Your task to perform on an android device: Open the Play Movies app and select the watchlist tab. Image 0: 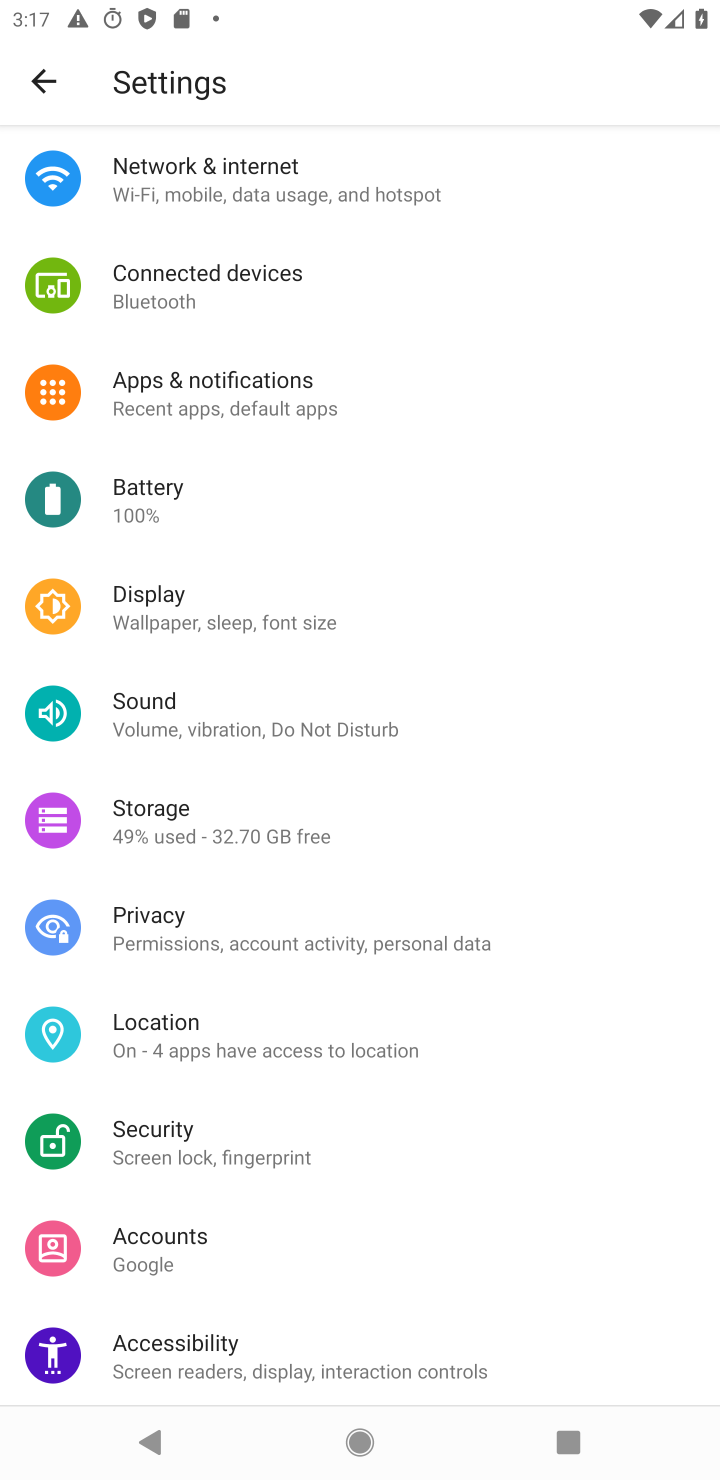
Step 0: press home button
Your task to perform on an android device: Open the Play Movies app and select the watchlist tab. Image 1: 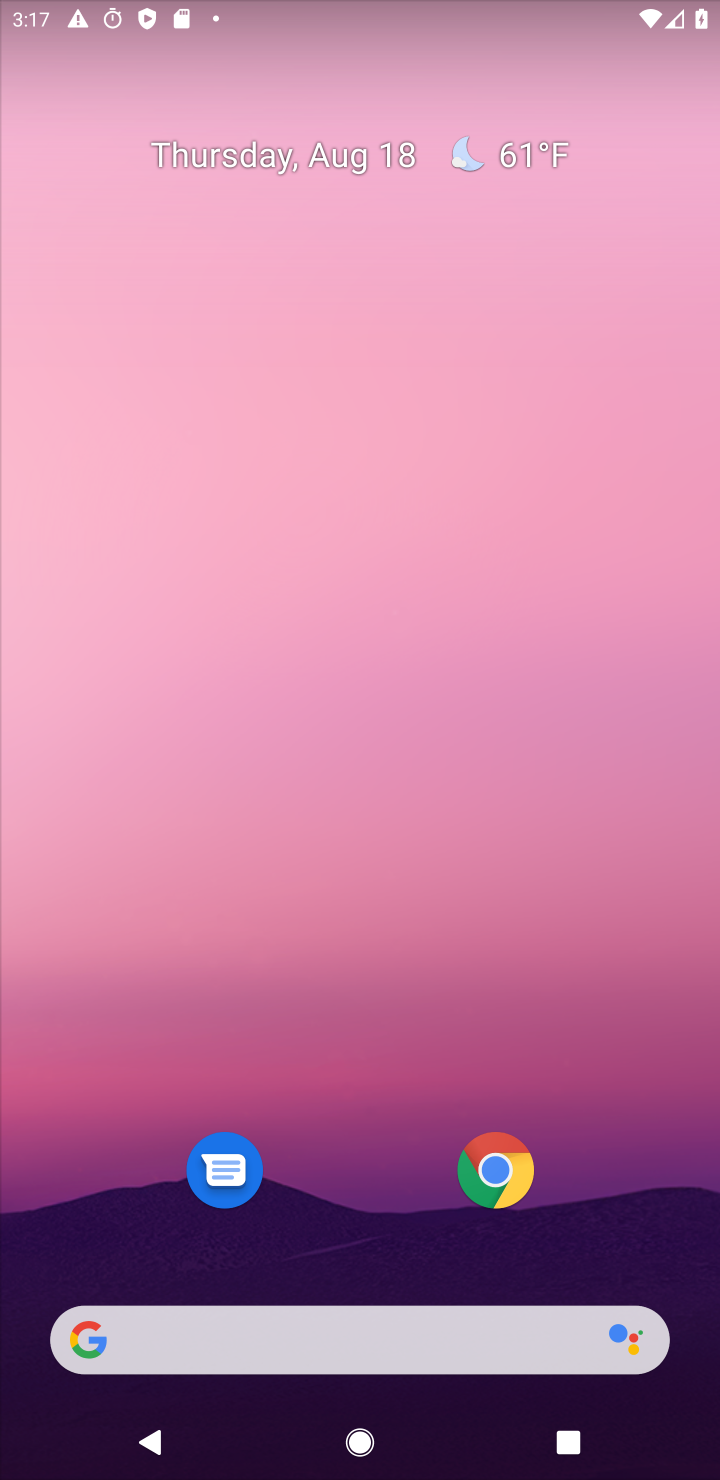
Step 1: drag from (28, 1414) to (490, 93)
Your task to perform on an android device: Open the Play Movies app and select the watchlist tab. Image 2: 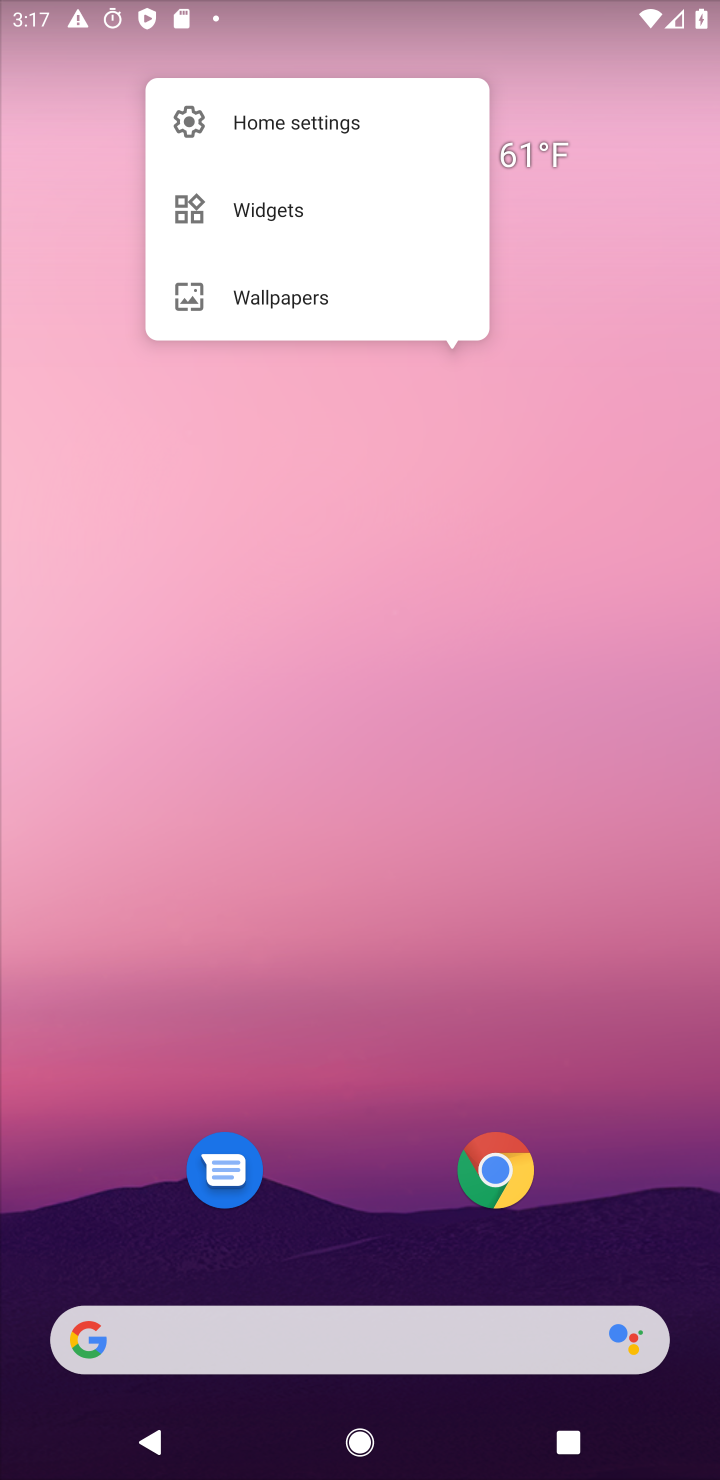
Step 2: drag from (16, 1425) to (486, 271)
Your task to perform on an android device: Open the Play Movies app and select the watchlist tab. Image 3: 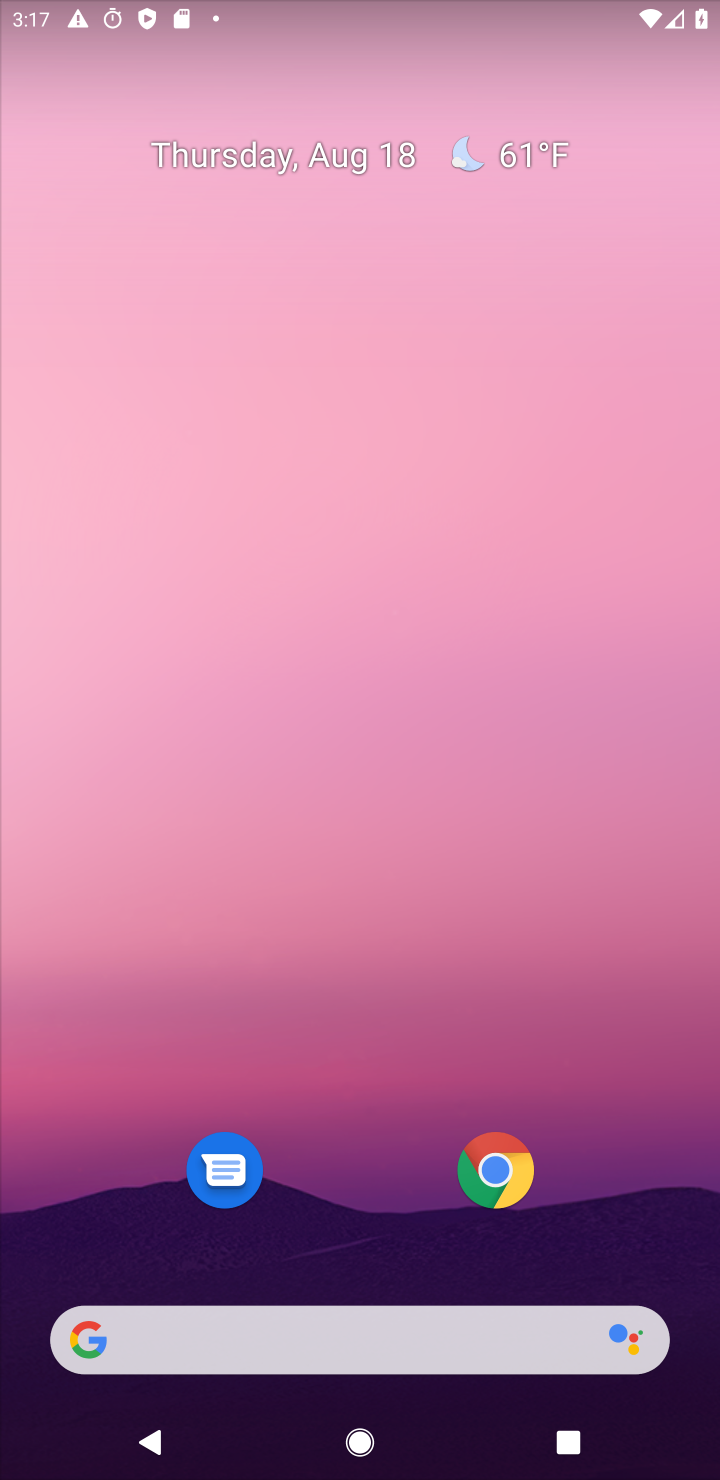
Step 3: drag from (206, 1261) to (381, 423)
Your task to perform on an android device: Open the Play Movies app and select the watchlist tab. Image 4: 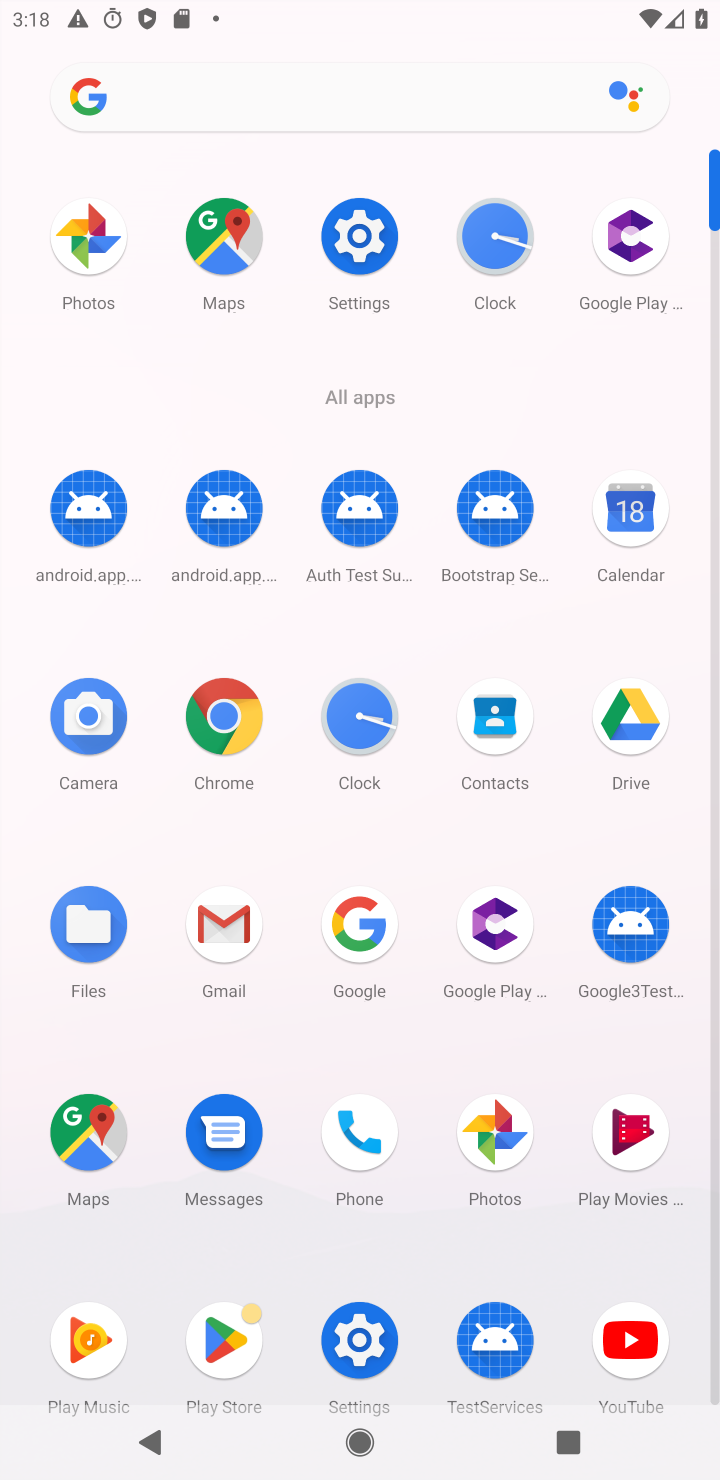
Step 4: click (614, 1119)
Your task to perform on an android device: Open the Play Movies app and select the watchlist tab. Image 5: 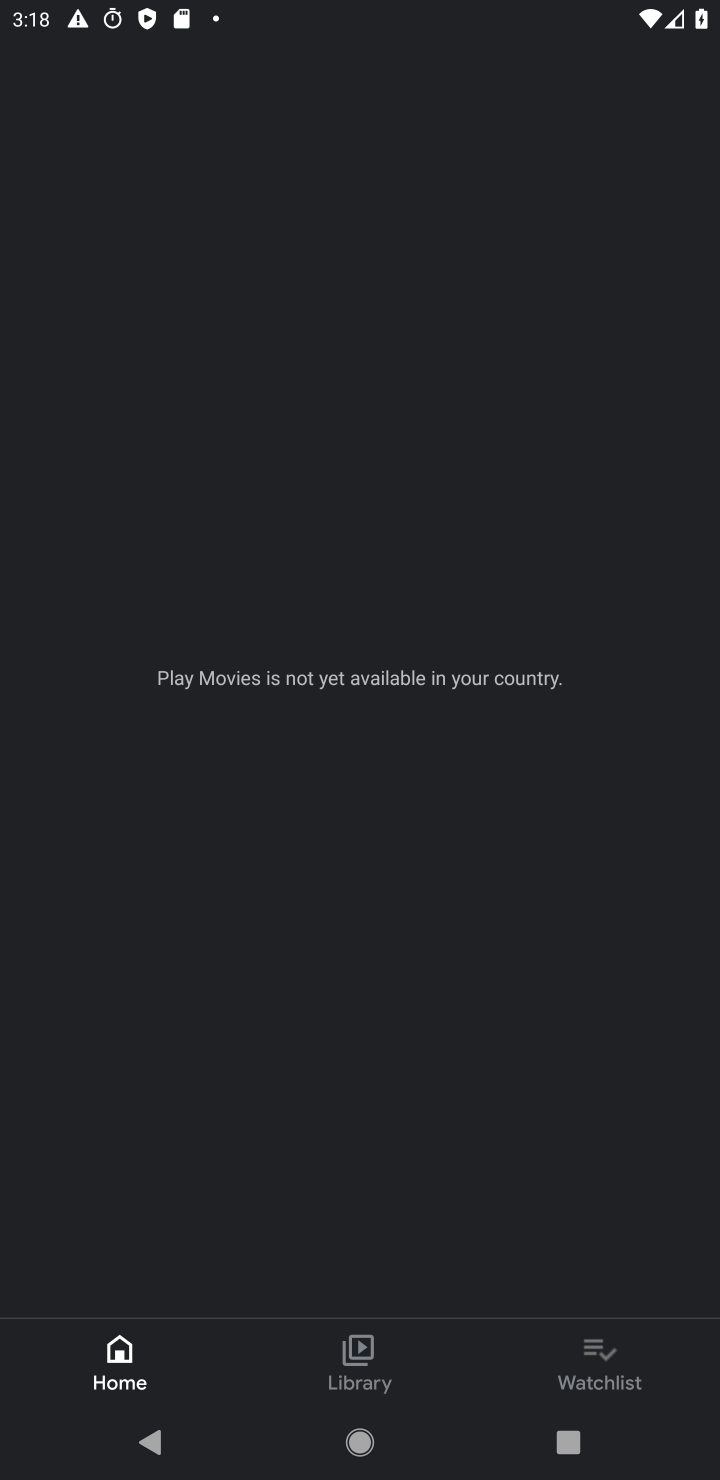
Step 5: click (592, 1372)
Your task to perform on an android device: Open the Play Movies app and select the watchlist tab. Image 6: 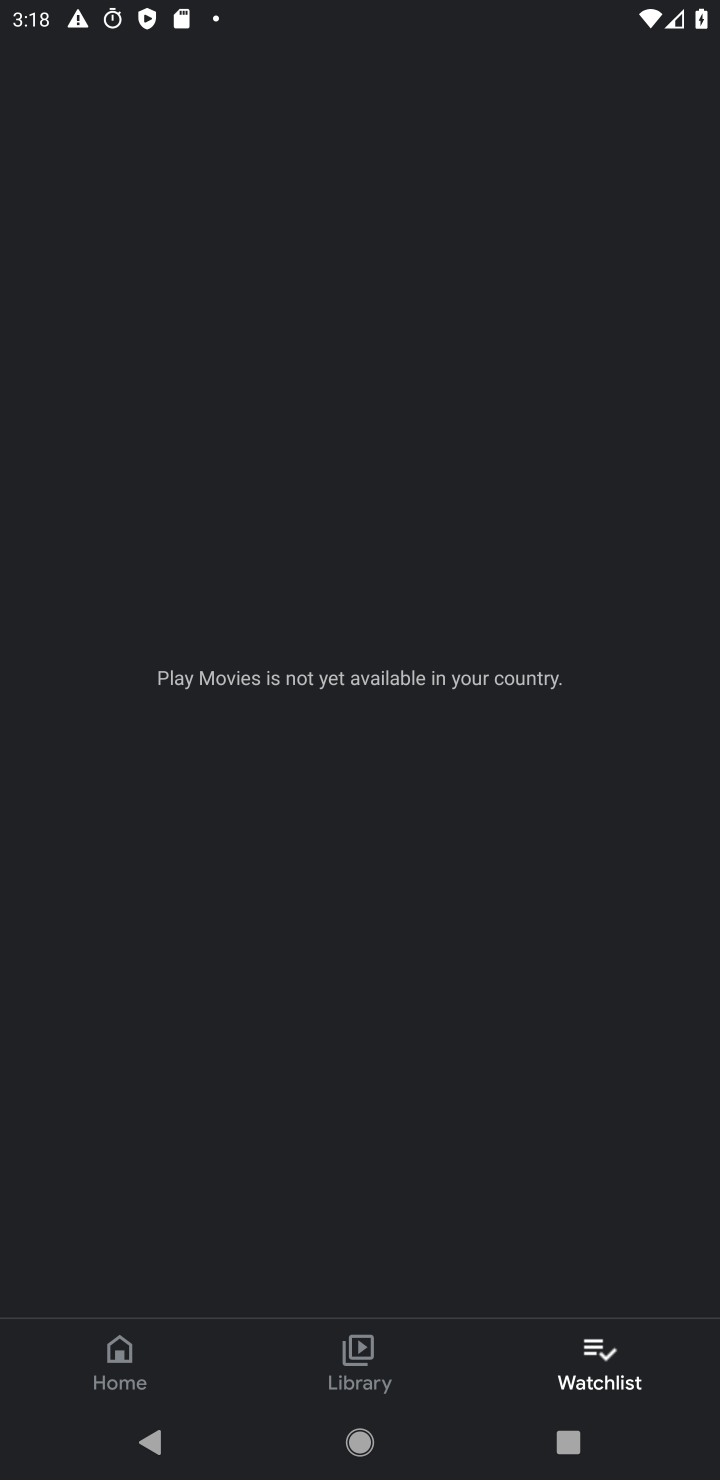
Step 6: task complete